Your task to perform on an android device: Open Google Chrome and open the bookmarks view Image 0: 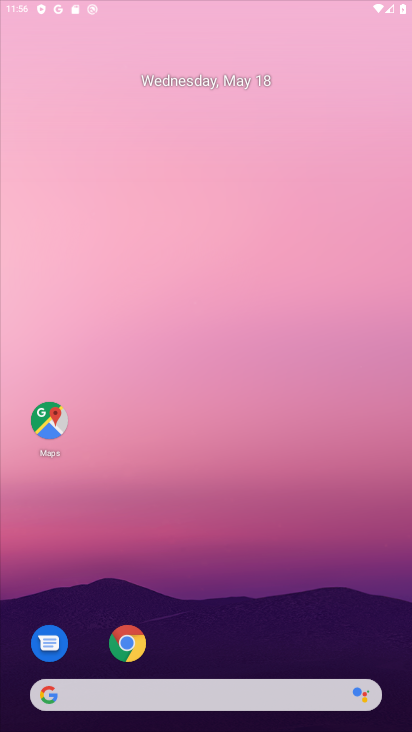
Step 0: drag from (375, 585) to (362, 192)
Your task to perform on an android device: Open Google Chrome and open the bookmarks view Image 1: 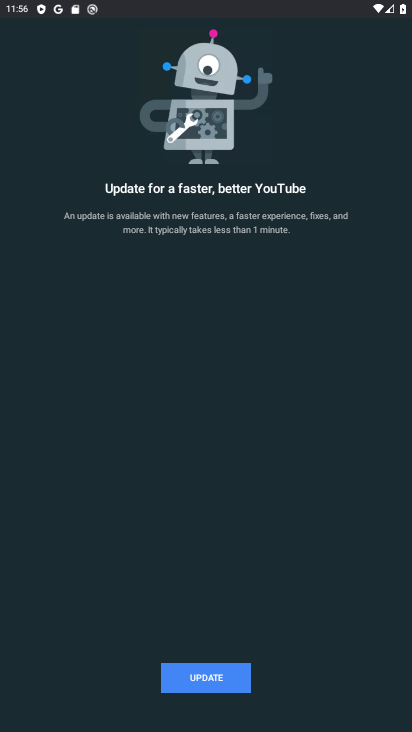
Step 1: press home button
Your task to perform on an android device: Open Google Chrome and open the bookmarks view Image 2: 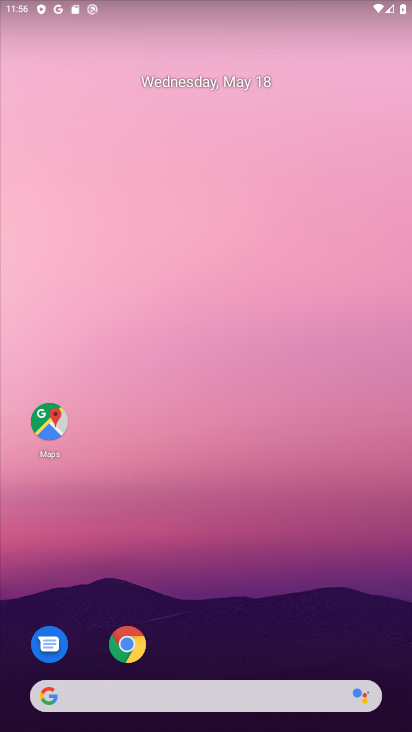
Step 2: drag from (357, 615) to (349, 239)
Your task to perform on an android device: Open Google Chrome and open the bookmarks view Image 3: 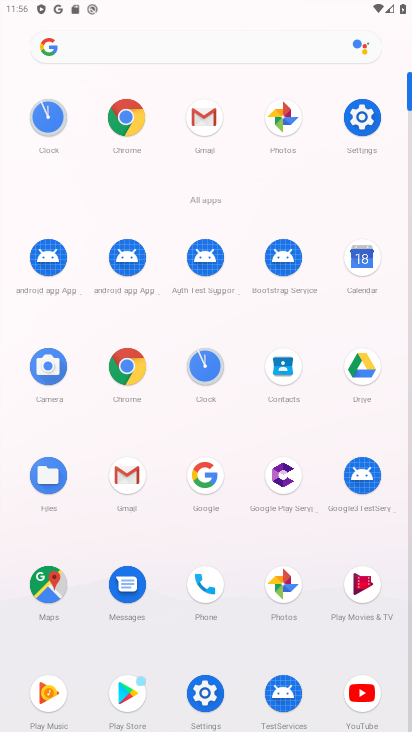
Step 3: click (119, 373)
Your task to perform on an android device: Open Google Chrome and open the bookmarks view Image 4: 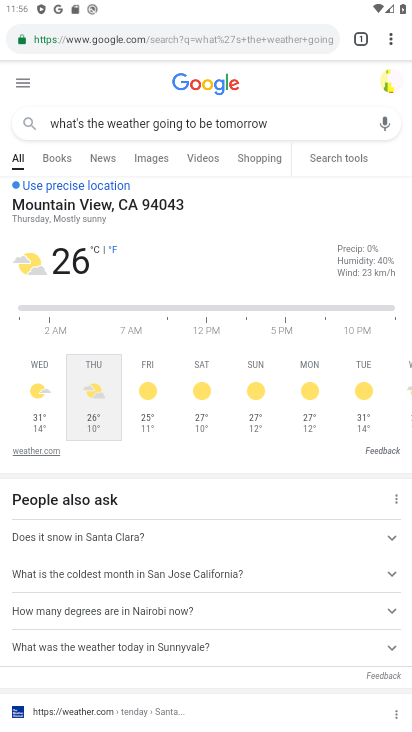
Step 4: task complete